Your task to perform on an android device: change alarm snooze length Image 0: 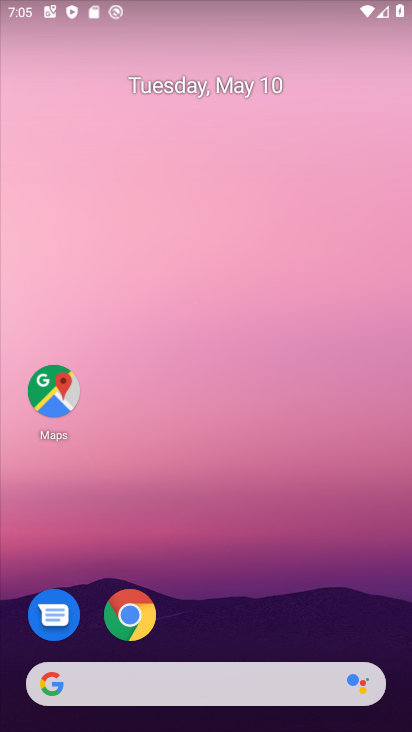
Step 0: drag from (273, 548) to (118, 106)
Your task to perform on an android device: change alarm snooze length Image 1: 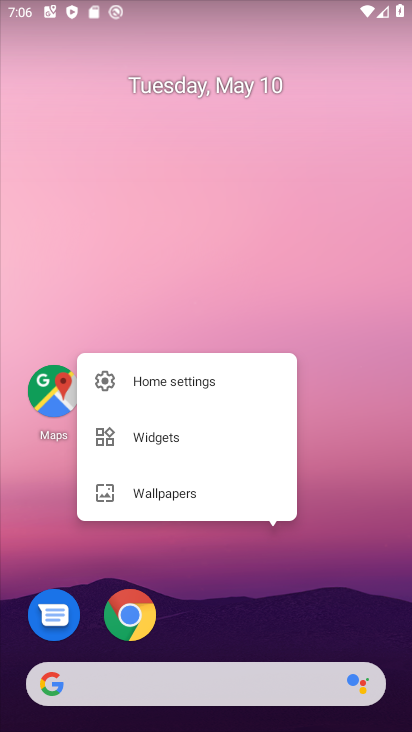
Step 1: click (382, 345)
Your task to perform on an android device: change alarm snooze length Image 2: 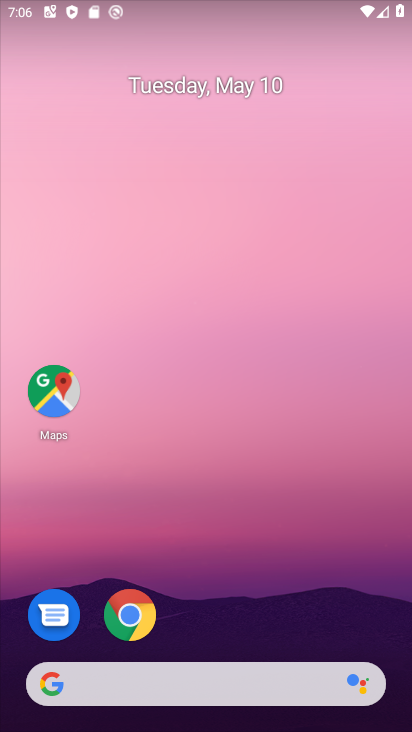
Step 2: drag from (153, 461) to (104, 38)
Your task to perform on an android device: change alarm snooze length Image 3: 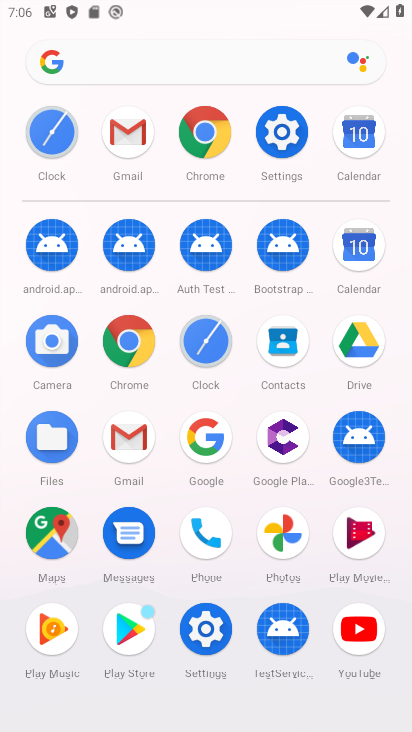
Step 3: click (207, 382)
Your task to perform on an android device: change alarm snooze length Image 4: 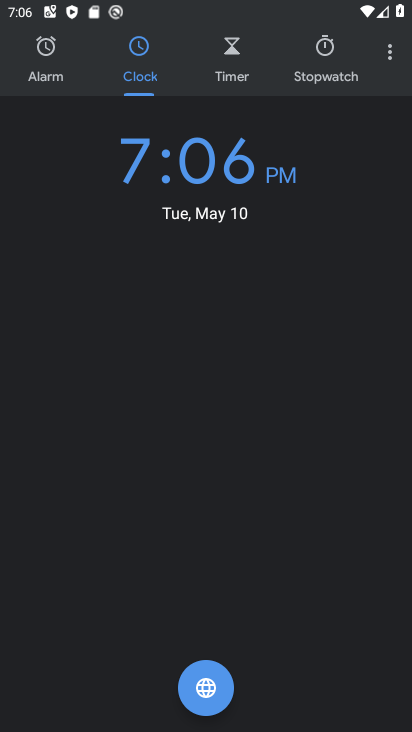
Step 4: click (389, 53)
Your task to perform on an android device: change alarm snooze length Image 5: 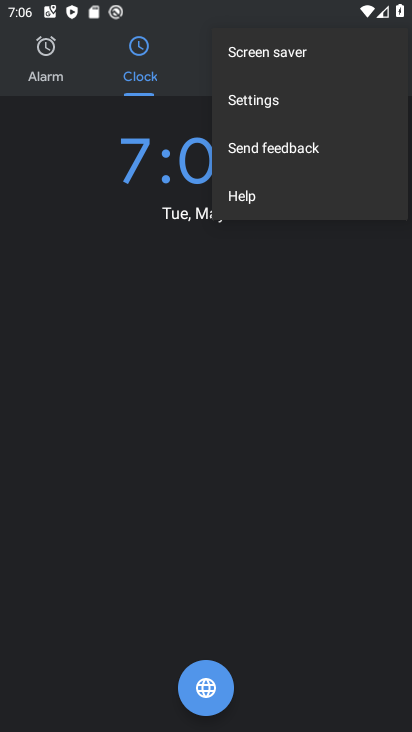
Step 5: click (265, 97)
Your task to perform on an android device: change alarm snooze length Image 6: 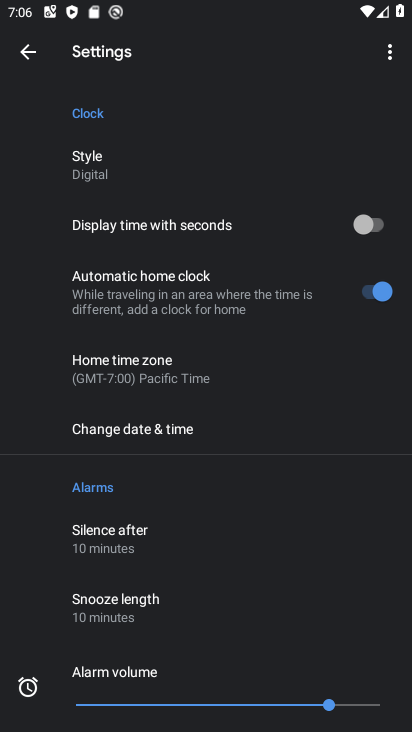
Step 6: click (144, 601)
Your task to perform on an android device: change alarm snooze length Image 7: 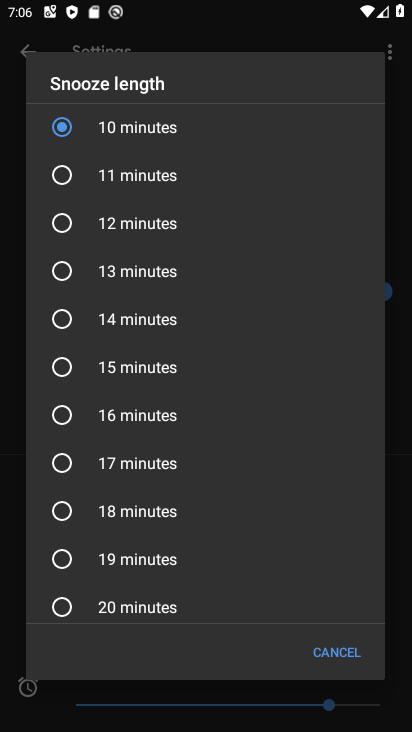
Step 7: click (61, 275)
Your task to perform on an android device: change alarm snooze length Image 8: 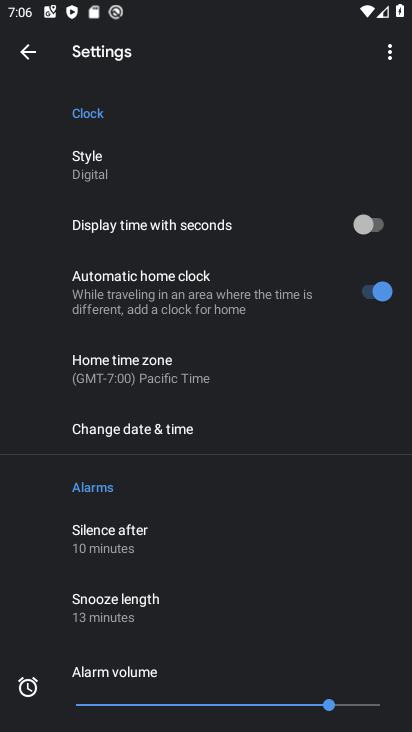
Step 8: task complete